Your task to perform on an android device: add a contact Image 0: 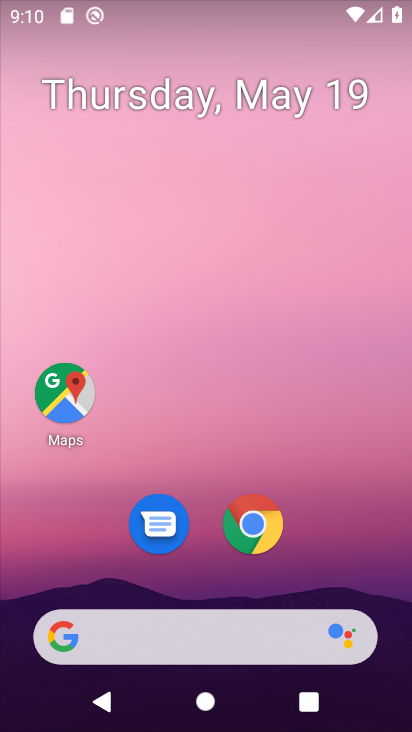
Step 0: drag from (339, 528) to (262, 80)
Your task to perform on an android device: add a contact Image 1: 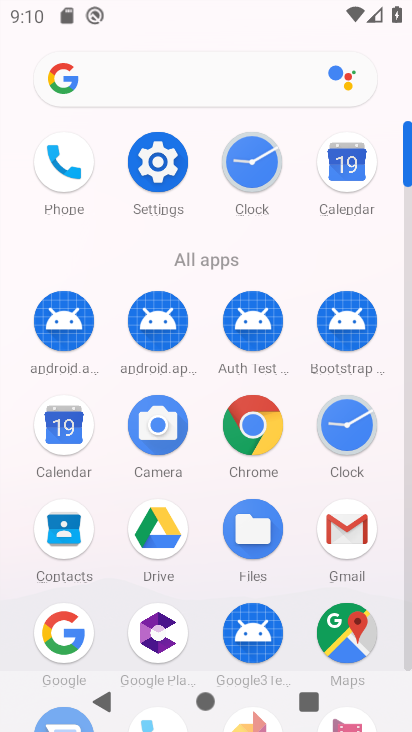
Step 1: click (75, 530)
Your task to perform on an android device: add a contact Image 2: 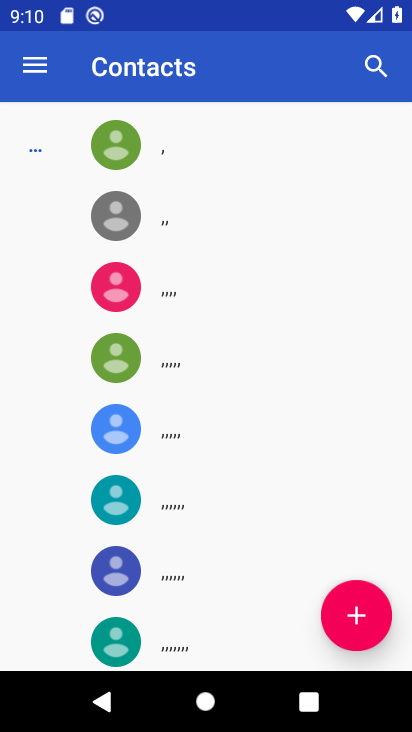
Step 2: click (357, 607)
Your task to perform on an android device: add a contact Image 3: 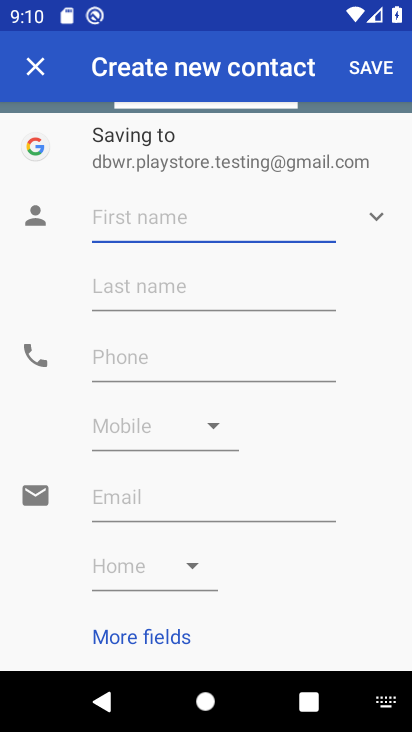
Step 3: type "Ram"
Your task to perform on an android device: add a contact Image 4: 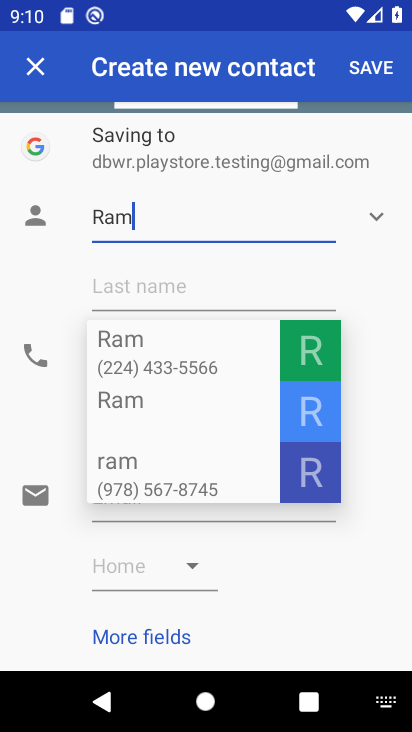
Step 4: click (375, 432)
Your task to perform on an android device: add a contact Image 5: 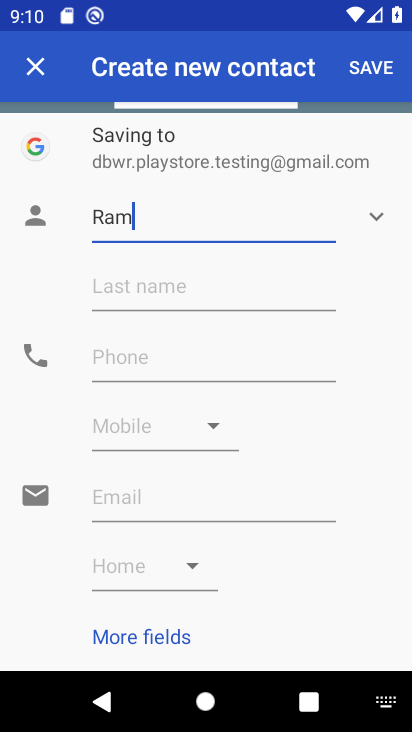
Step 5: click (231, 359)
Your task to perform on an android device: add a contact Image 6: 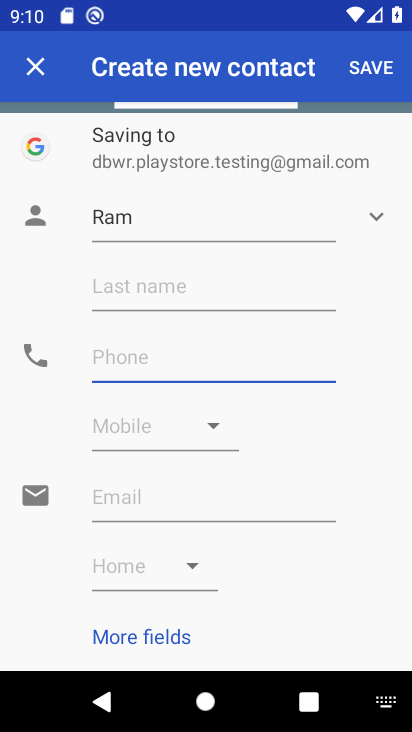
Step 6: type "01133557799"
Your task to perform on an android device: add a contact Image 7: 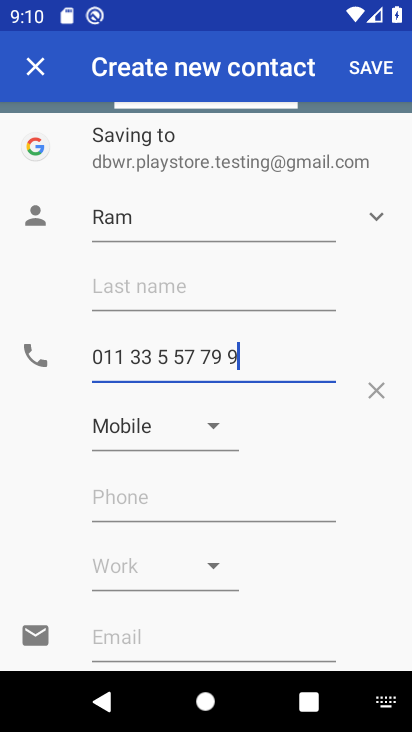
Step 7: click (372, 68)
Your task to perform on an android device: add a contact Image 8: 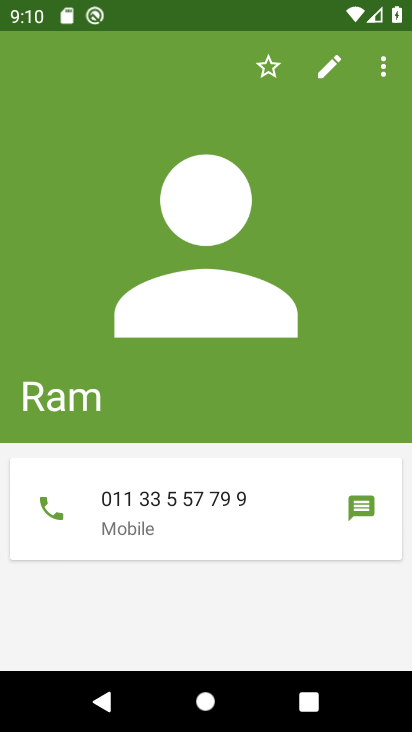
Step 8: task complete